Your task to perform on an android device: Go to Reddit.com Image 0: 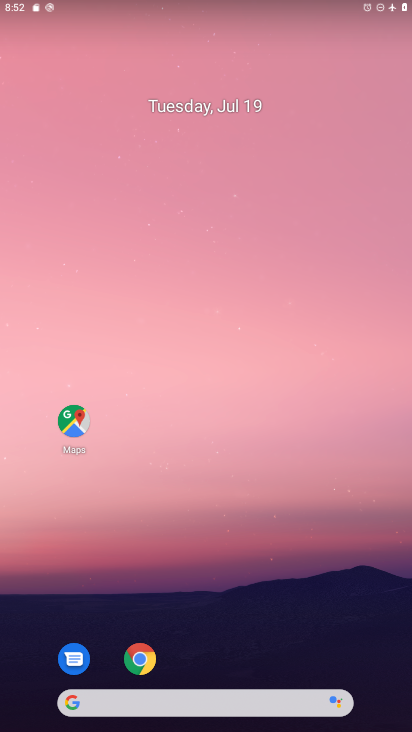
Step 0: click (145, 670)
Your task to perform on an android device: Go to Reddit.com Image 1: 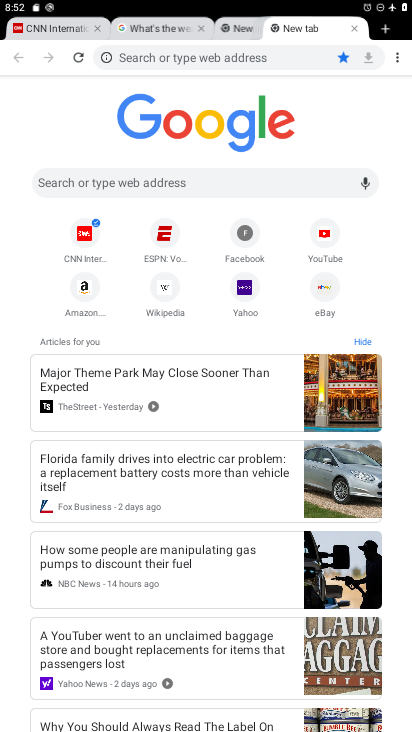
Step 1: click (253, 52)
Your task to perform on an android device: Go to Reddit.com Image 2: 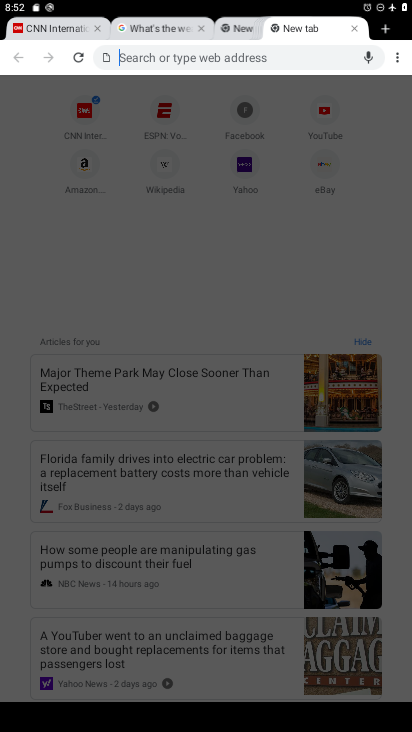
Step 2: type "Reddit.com "
Your task to perform on an android device: Go to Reddit.com Image 3: 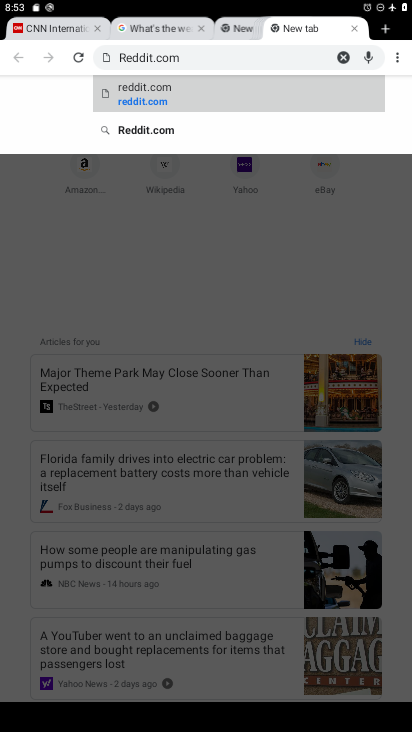
Step 3: click (152, 89)
Your task to perform on an android device: Go to Reddit.com Image 4: 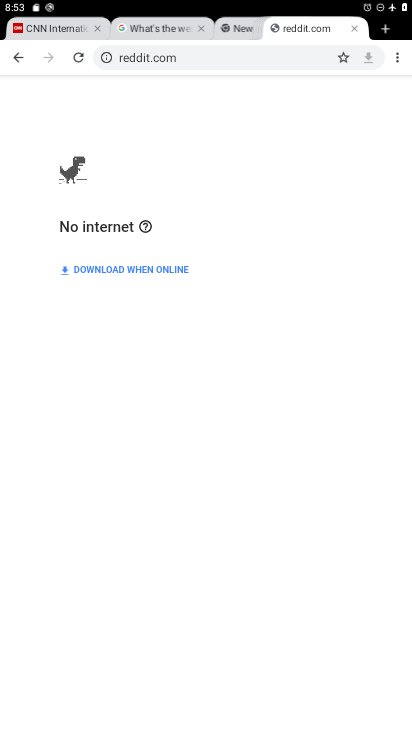
Step 4: task complete